Your task to perform on an android device: Open settings on Google Maps Image 0: 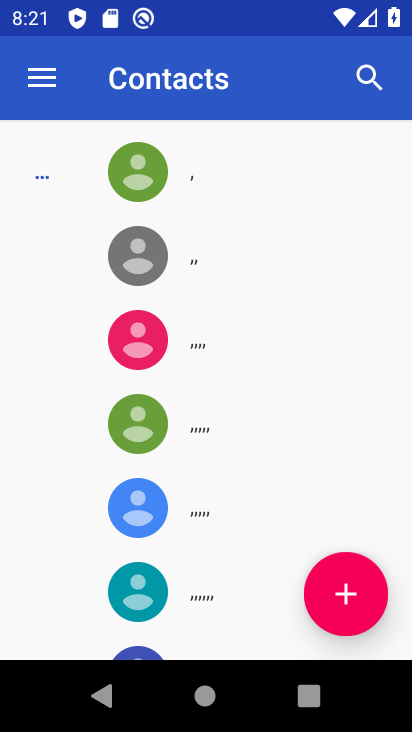
Step 0: press home button
Your task to perform on an android device: Open settings on Google Maps Image 1: 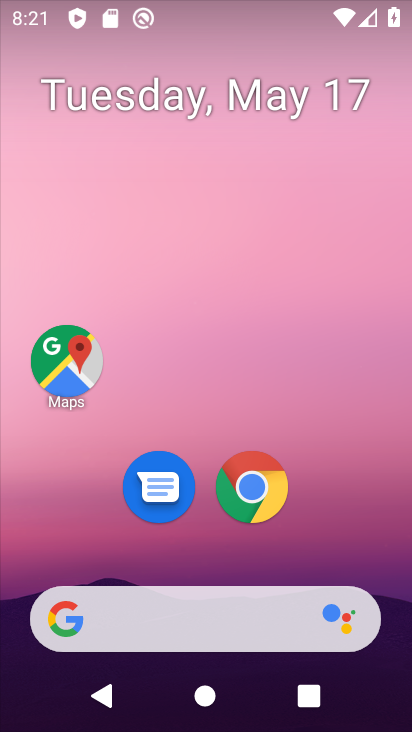
Step 1: drag from (233, 661) to (116, 253)
Your task to perform on an android device: Open settings on Google Maps Image 2: 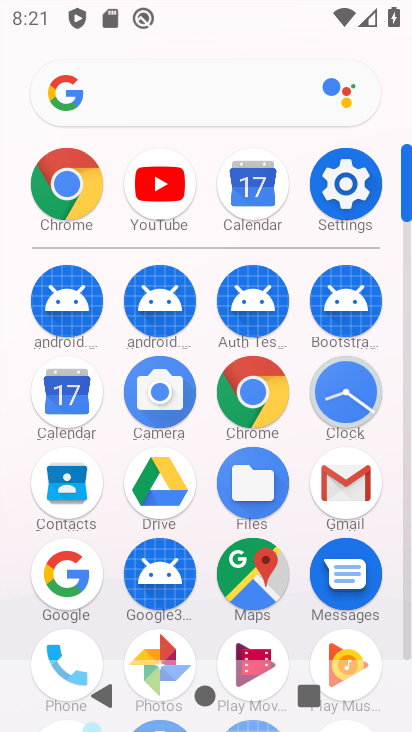
Step 2: click (263, 559)
Your task to perform on an android device: Open settings on Google Maps Image 3: 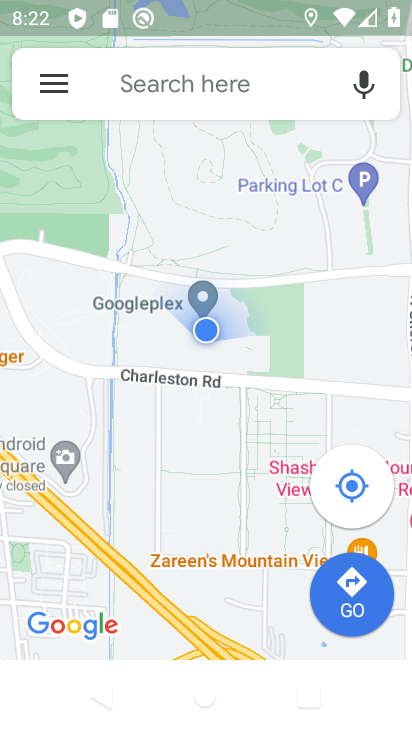
Step 3: click (37, 95)
Your task to perform on an android device: Open settings on Google Maps Image 4: 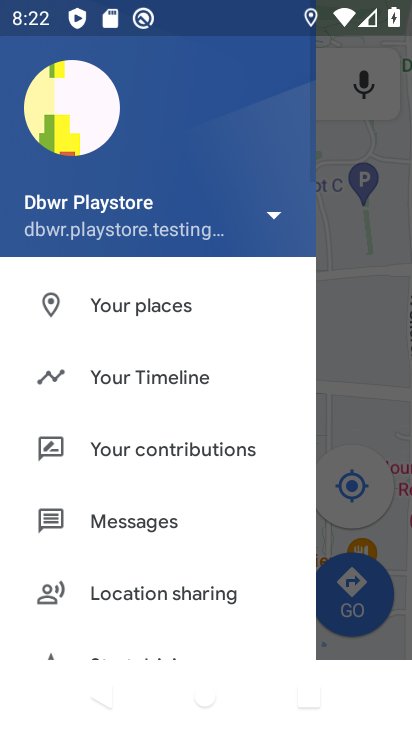
Step 4: drag from (160, 553) to (191, 321)
Your task to perform on an android device: Open settings on Google Maps Image 5: 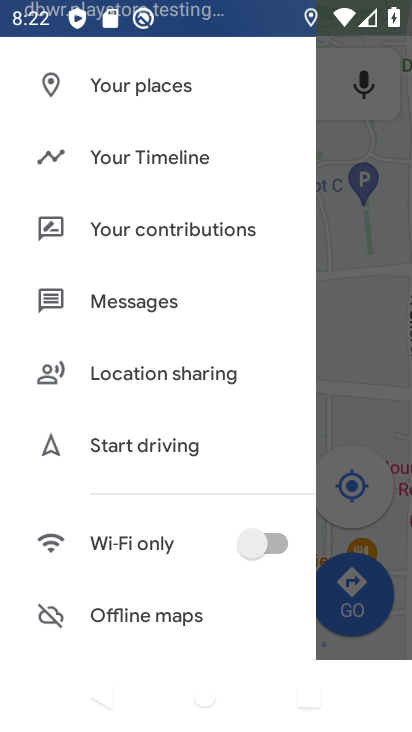
Step 5: drag from (131, 590) to (141, 315)
Your task to perform on an android device: Open settings on Google Maps Image 6: 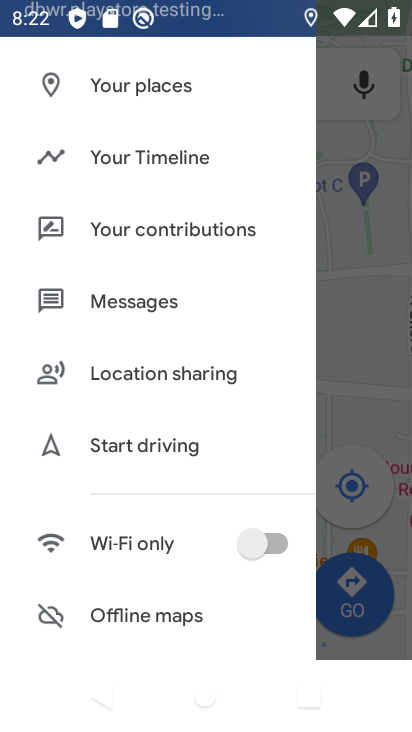
Step 6: drag from (108, 511) to (83, 283)
Your task to perform on an android device: Open settings on Google Maps Image 7: 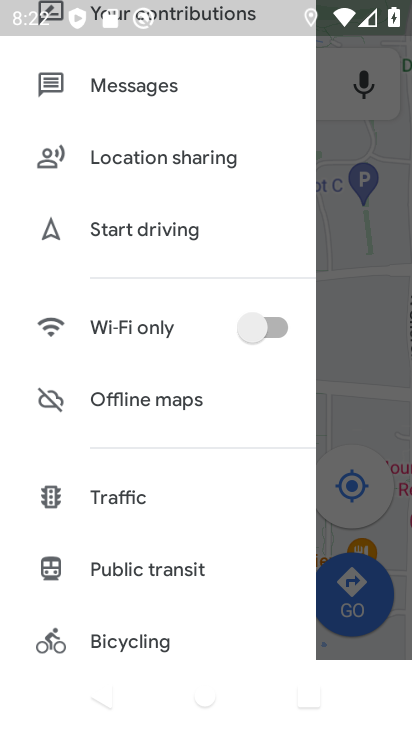
Step 7: drag from (160, 530) to (166, 311)
Your task to perform on an android device: Open settings on Google Maps Image 8: 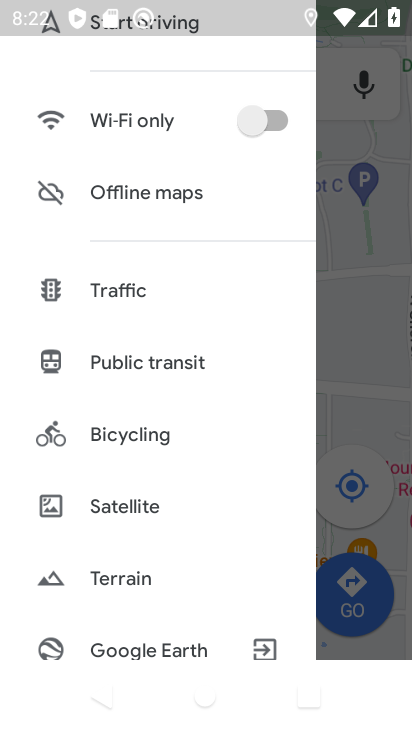
Step 8: drag from (157, 532) to (139, 252)
Your task to perform on an android device: Open settings on Google Maps Image 9: 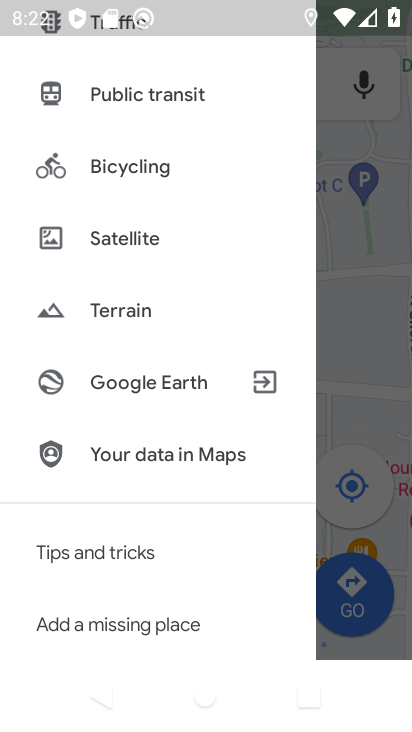
Step 9: drag from (163, 483) to (138, 243)
Your task to perform on an android device: Open settings on Google Maps Image 10: 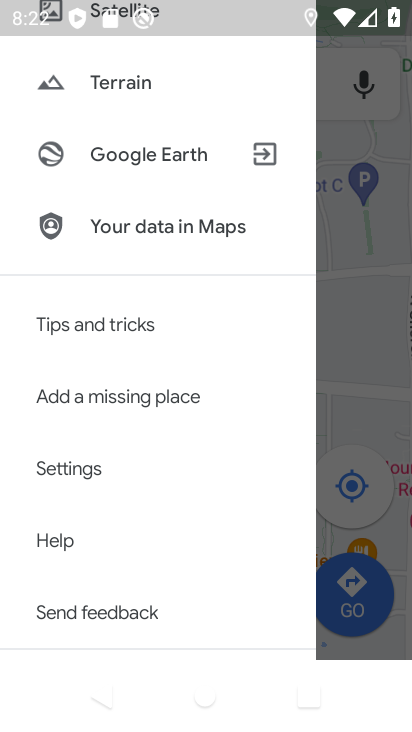
Step 10: click (78, 465)
Your task to perform on an android device: Open settings on Google Maps Image 11: 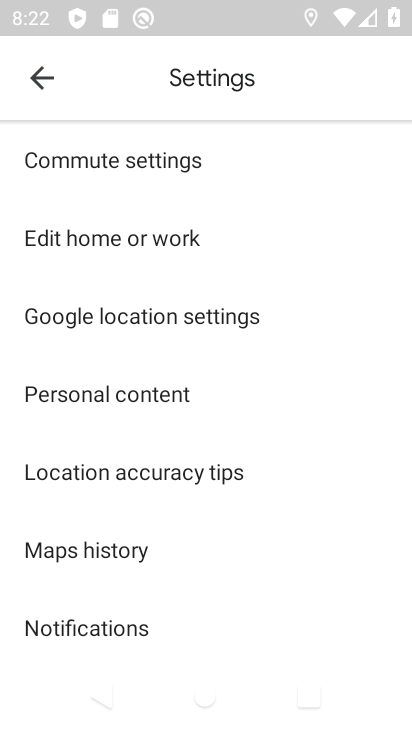
Step 11: task complete